Your task to perform on an android device: Go to notification settings Image 0: 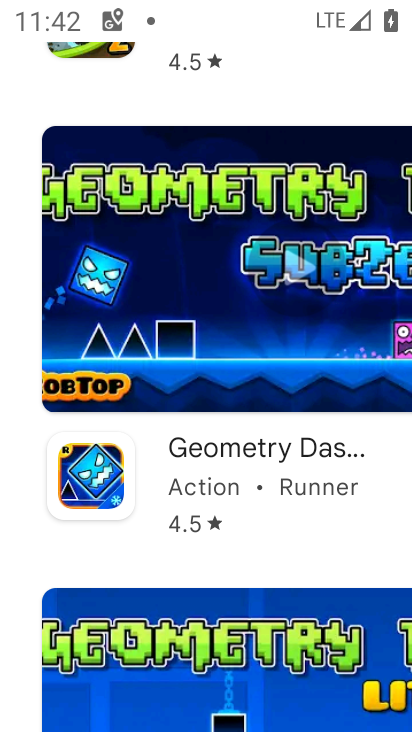
Step 0: press home button
Your task to perform on an android device: Go to notification settings Image 1: 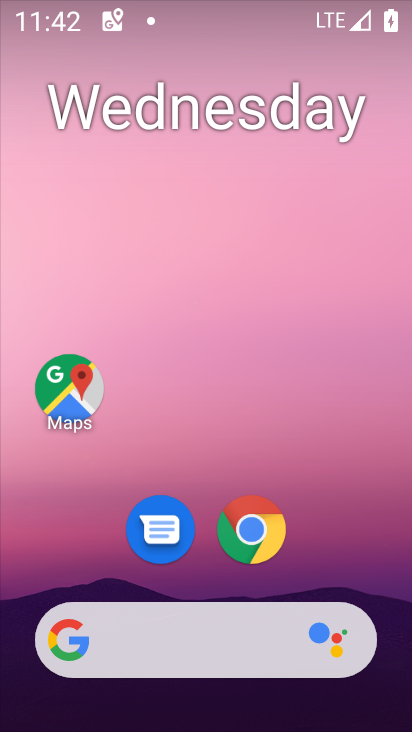
Step 1: drag from (402, 633) to (325, 106)
Your task to perform on an android device: Go to notification settings Image 2: 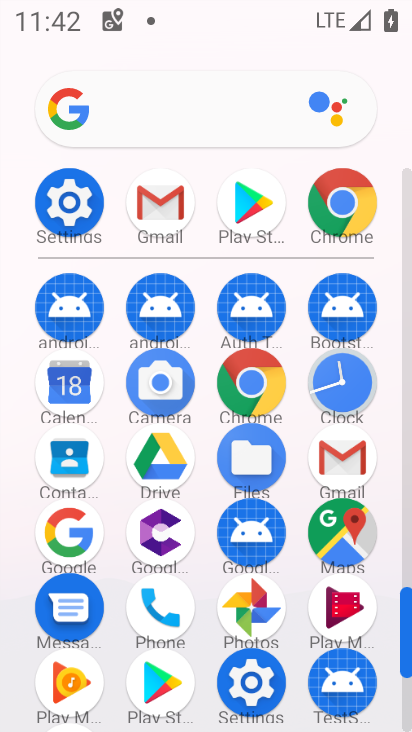
Step 2: click (405, 719)
Your task to perform on an android device: Go to notification settings Image 3: 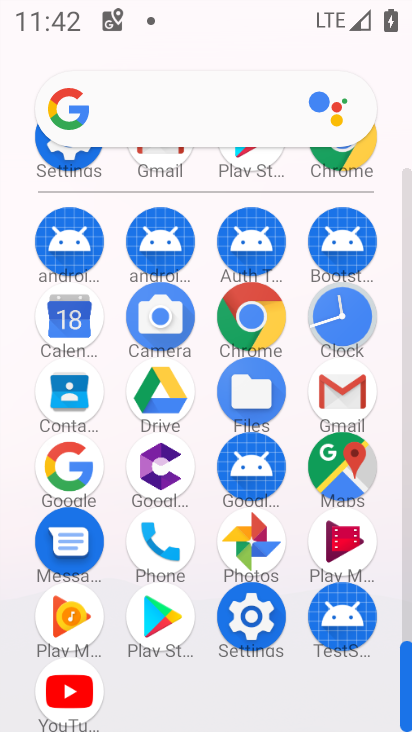
Step 3: click (247, 614)
Your task to perform on an android device: Go to notification settings Image 4: 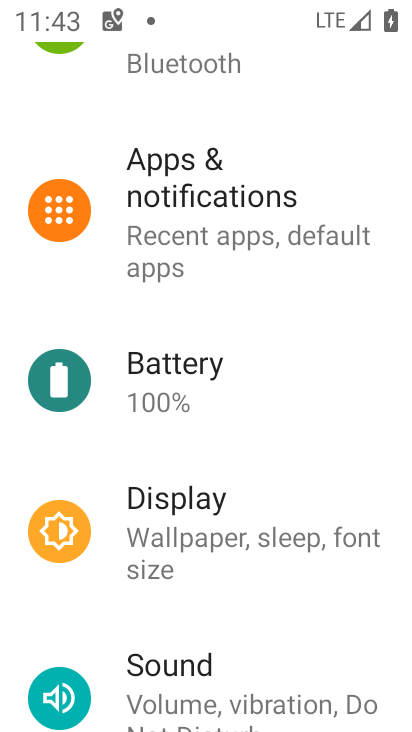
Step 4: click (184, 187)
Your task to perform on an android device: Go to notification settings Image 5: 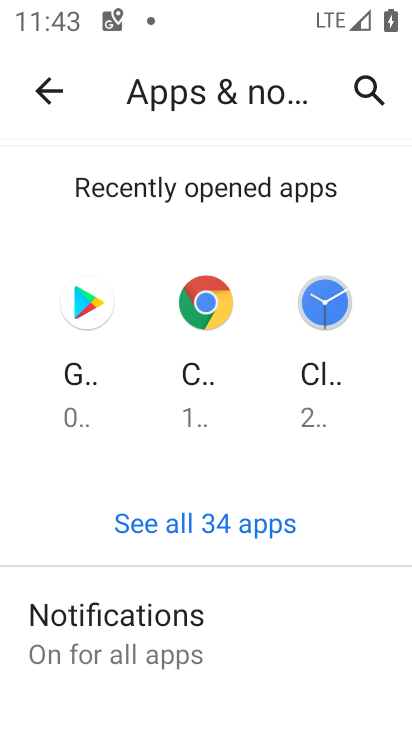
Step 5: drag from (246, 639) to (278, 199)
Your task to perform on an android device: Go to notification settings Image 6: 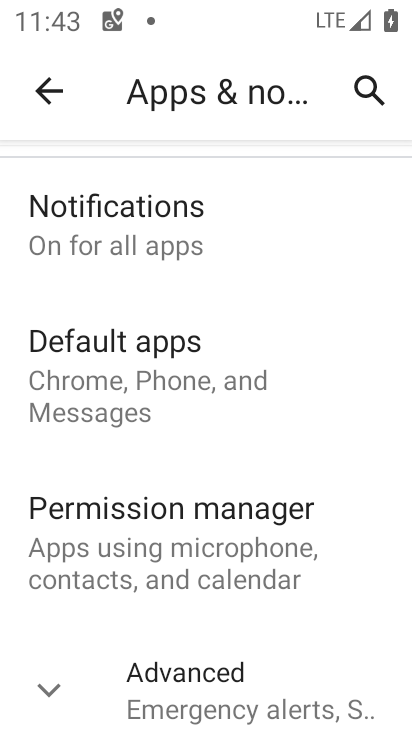
Step 6: click (126, 218)
Your task to perform on an android device: Go to notification settings Image 7: 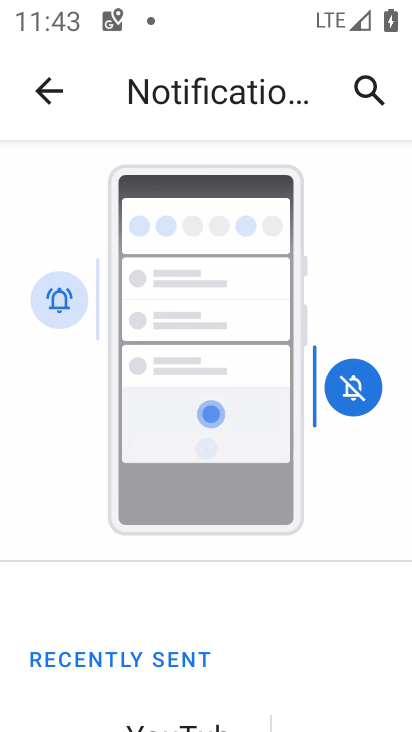
Step 7: drag from (250, 675) to (227, 241)
Your task to perform on an android device: Go to notification settings Image 8: 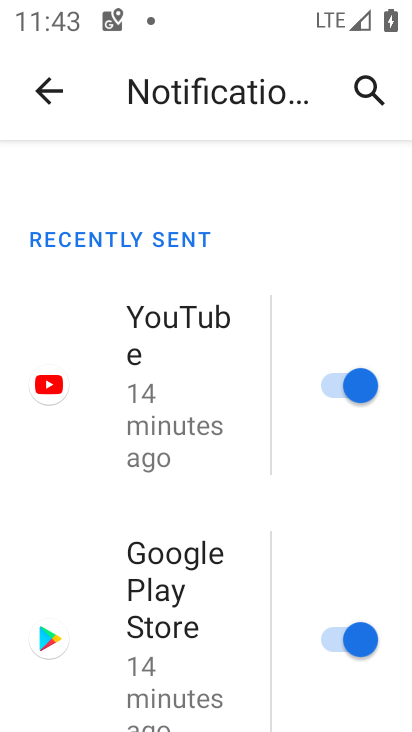
Step 8: drag from (272, 626) to (219, 187)
Your task to perform on an android device: Go to notification settings Image 9: 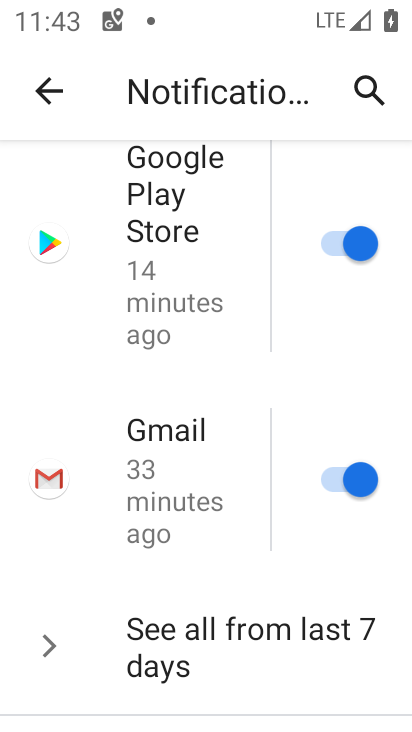
Step 9: click (246, 561)
Your task to perform on an android device: Go to notification settings Image 10: 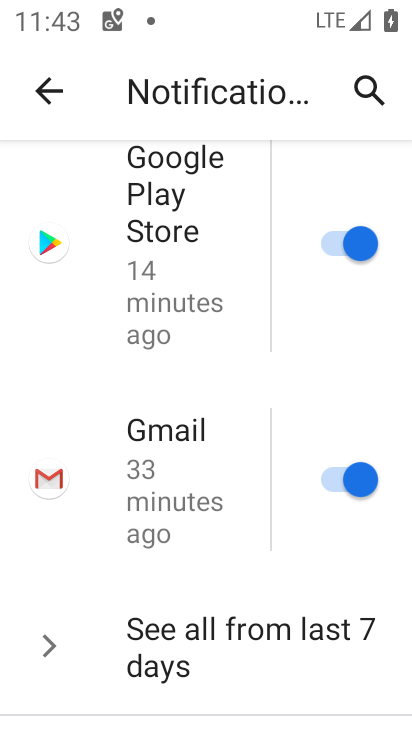
Step 10: drag from (246, 561) to (247, 191)
Your task to perform on an android device: Go to notification settings Image 11: 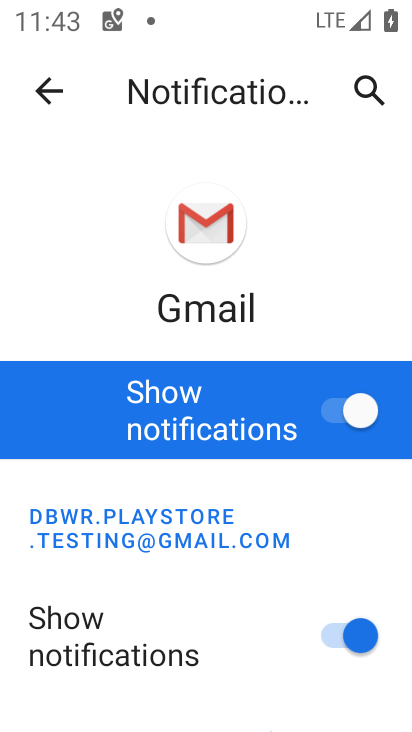
Step 11: press back button
Your task to perform on an android device: Go to notification settings Image 12: 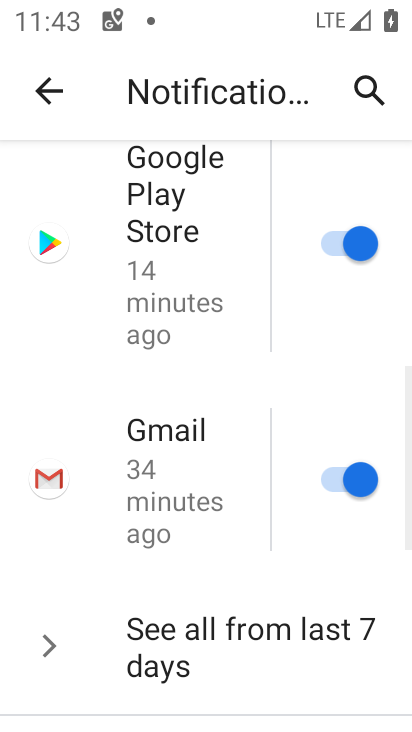
Step 12: drag from (266, 658) to (257, 204)
Your task to perform on an android device: Go to notification settings Image 13: 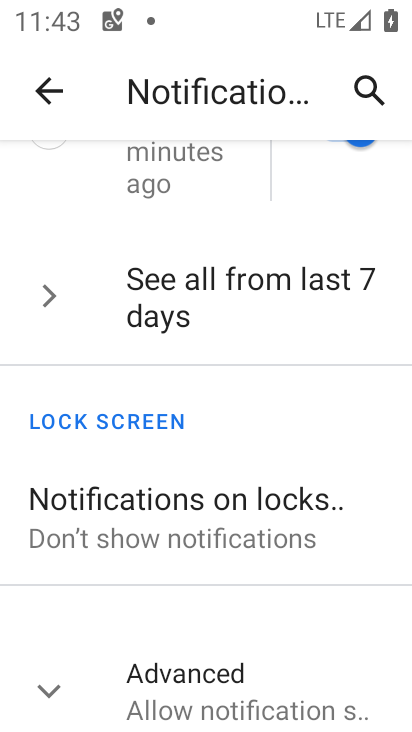
Step 13: click (42, 687)
Your task to perform on an android device: Go to notification settings Image 14: 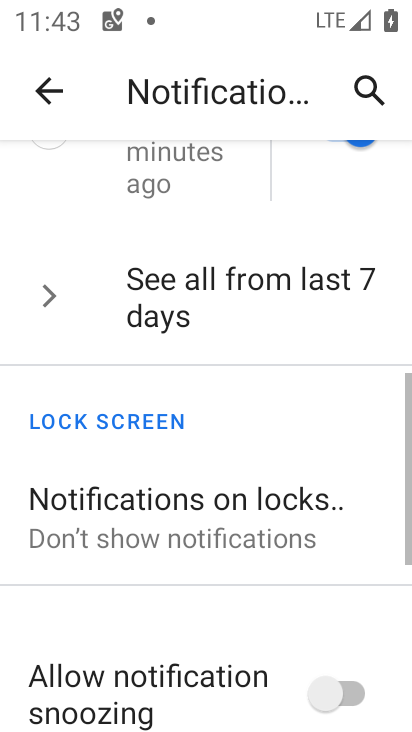
Step 14: task complete